Your task to perform on an android device: Open the stopwatch Image 0: 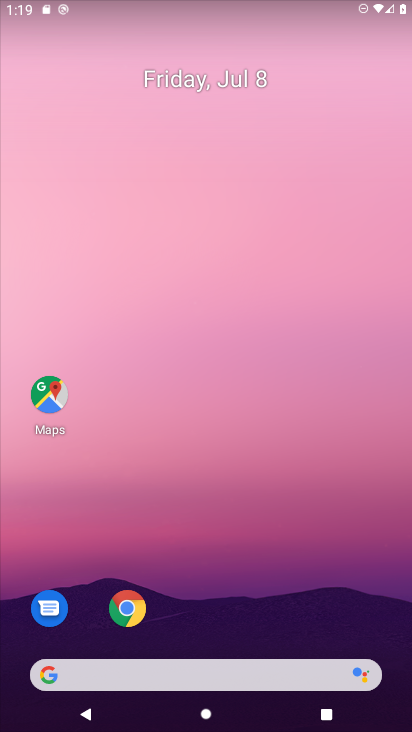
Step 0: drag from (271, 305) to (247, 38)
Your task to perform on an android device: Open the stopwatch Image 1: 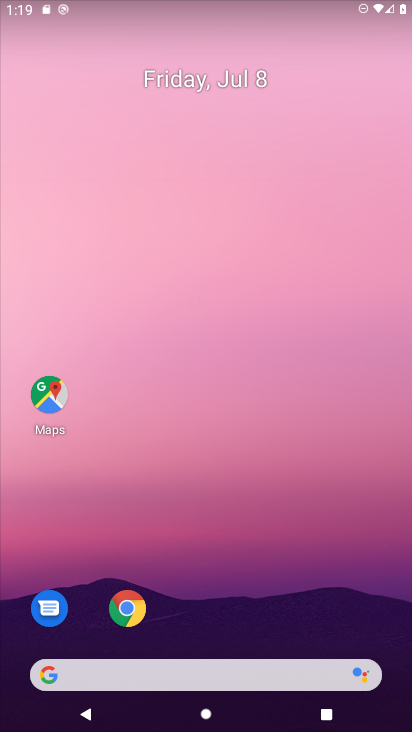
Step 1: drag from (245, 580) to (247, 146)
Your task to perform on an android device: Open the stopwatch Image 2: 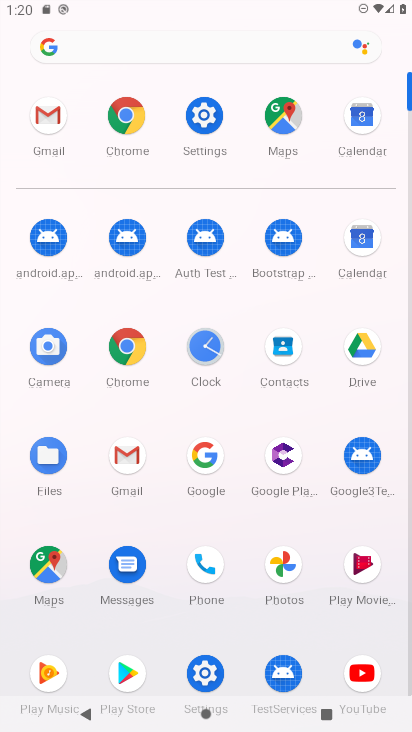
Step 2: click (216, 360)
Your task to perform on an android device: Open the stopwatch Image 3: 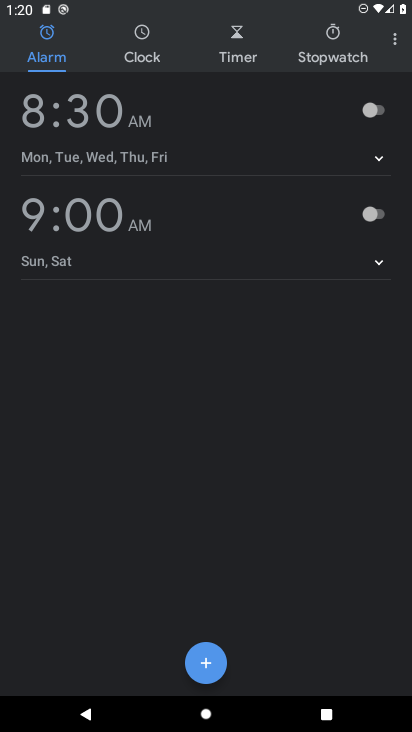
Step 3: click (310, 44)
Your task to perform on an android device: Open the stopwatch Image 4: 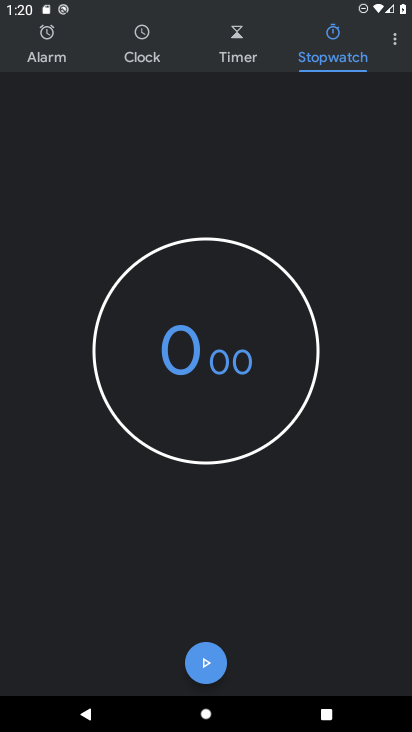
Step 4: task complete